Your task to perform on an android device: Open the stopwatch Image 0: 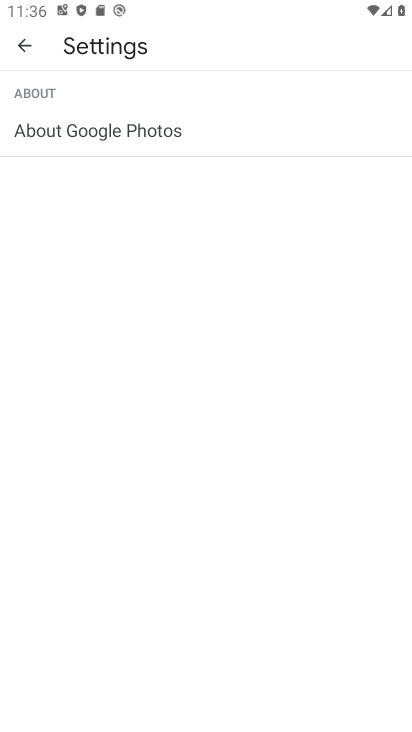
Step 0: press home button
Your task to perform on an android device: Open the stopwatch Image 1: 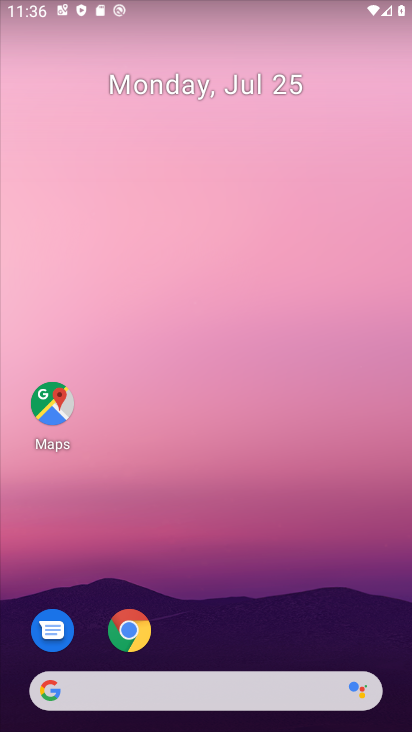
Step 1: drag from (361, 592) to (374, 95)
Your task to perform on an android device: Open the stopwatch Image 2: 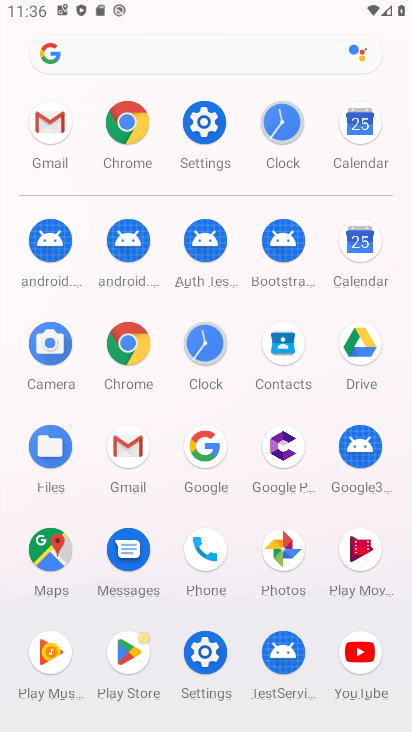
Step 2: click (206, 346)
Your task to perform on an android device: Open the stopwatch Image 3: 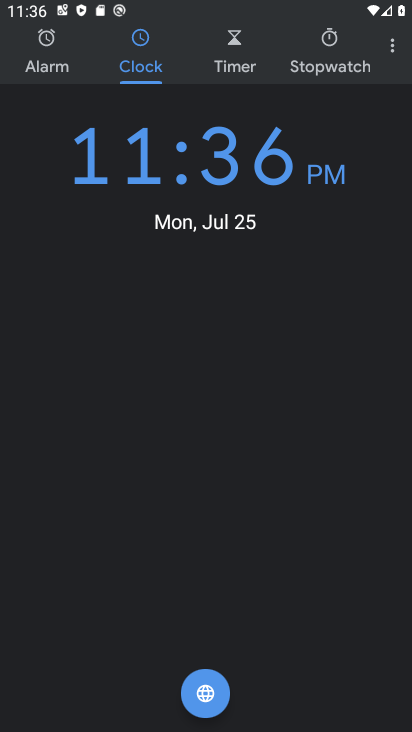
Step 3: click (327, 59)
Your task to perform on an android device: Open the stopwatch Image 4: 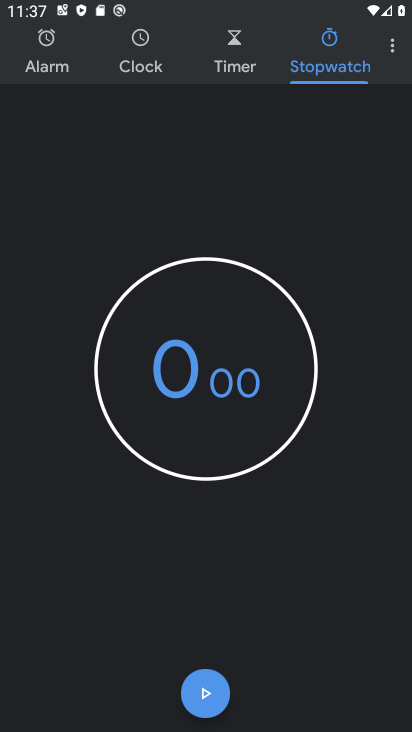
Step 4: task complete